Your task to perform on an android device: check battery use Image 0: 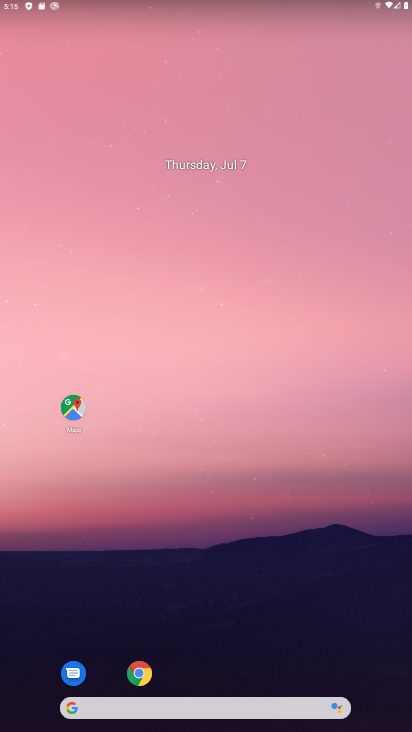
Step 0: click (345, 71)
Your task to perform on an android device: check battery use Image 1: 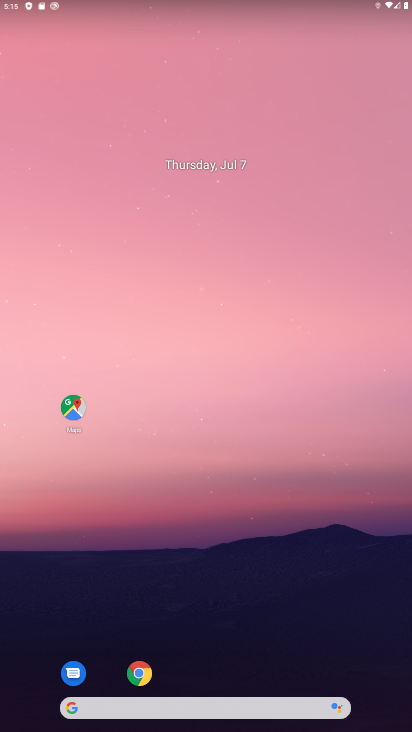
Step 1: press back button
Your task to perform on an android device: check battery use Image 2: 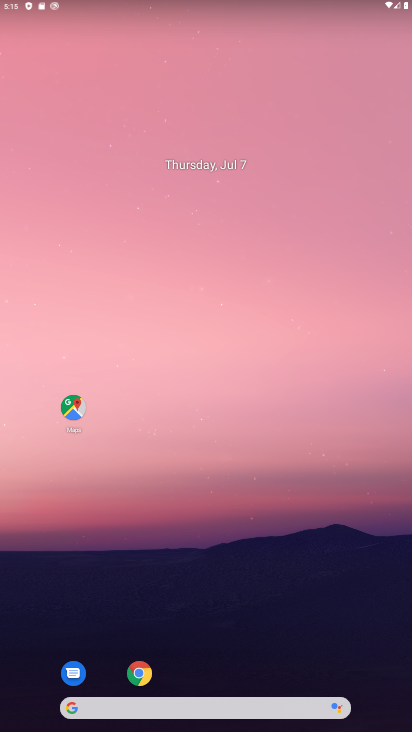
Step 2: press back button
Your task to perform on an android device: check battery use Image 3: 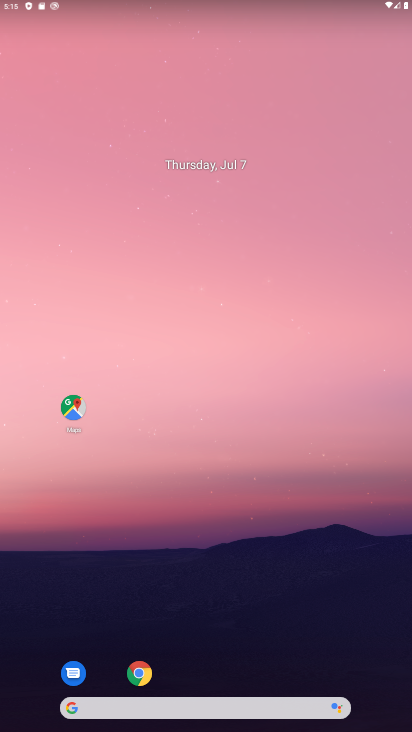
Step 3: click (233, 28)
Your task to perform on an android device: check battery use Image 4: 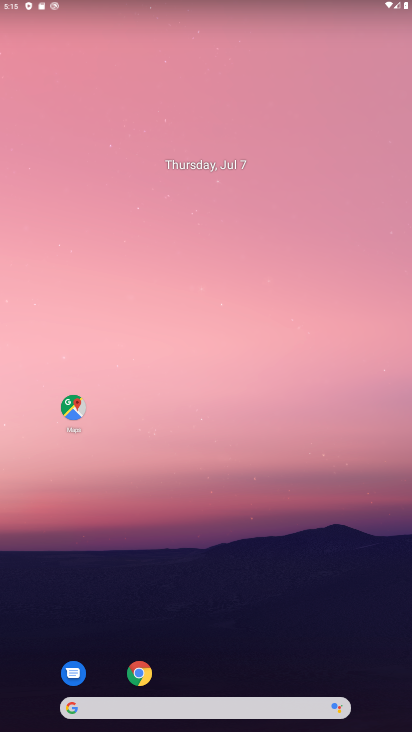
Step 4: drag from (207, 536) to (115, 132)
Your task to perform on an android device: check battery use Image 5: 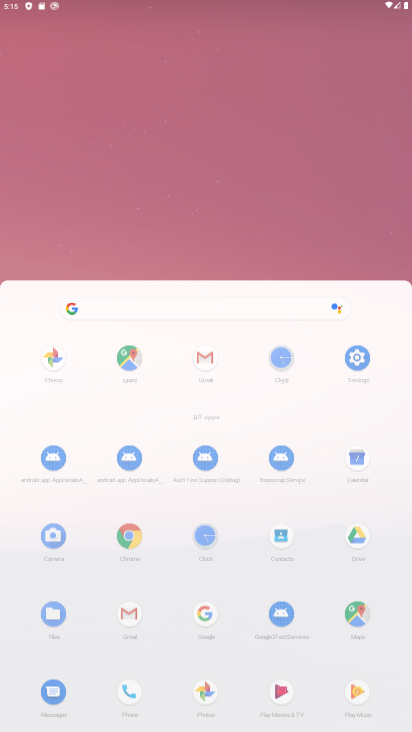
Step 5: drag from (196, 537) to (142, 117)
Your task to perform on an android device: check battery use Image 6: 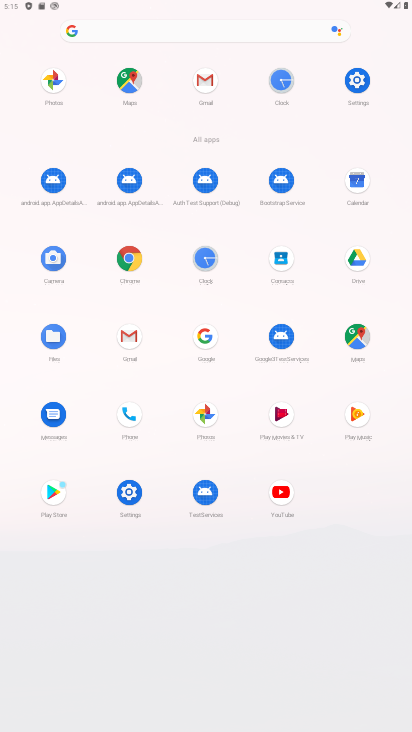
Step 6: click (137, 500)
Your task to perform on an android device: check battery use Image 7: 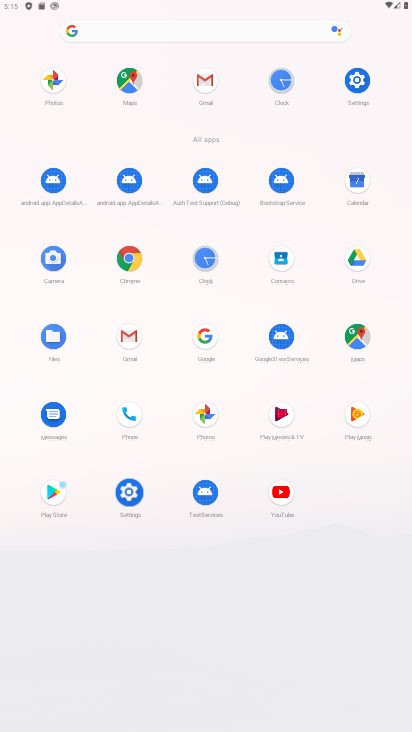
Step 7: click (134, 499)
Your task to perform on an android device: check battery use Image 8: 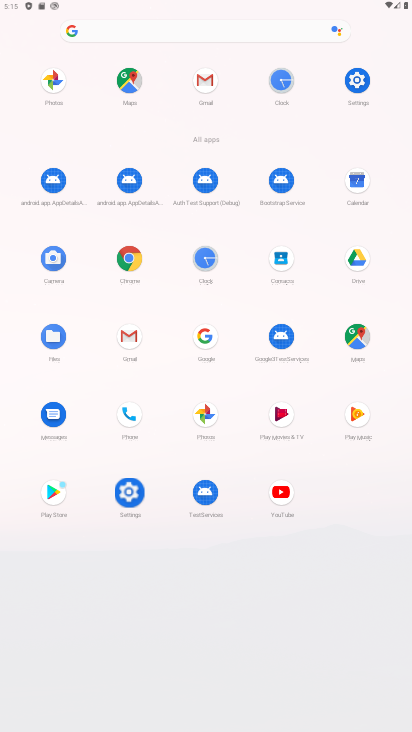
Step 8: click (134, 499)
Your task to perform on an android device: check battery use Image 9: 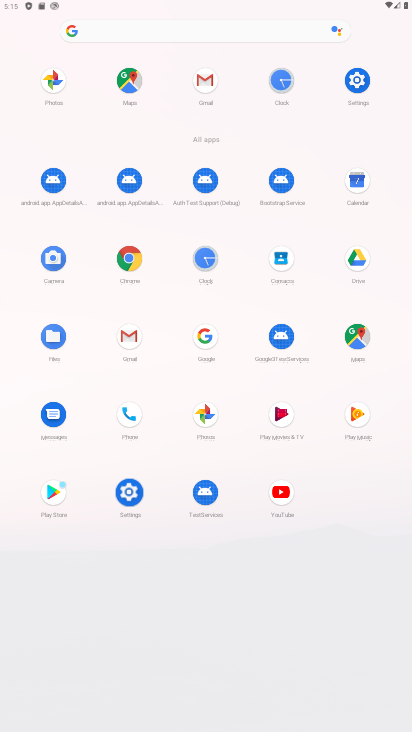
Step 9: click (134, 499)
Your task to perform on an android device: check battery use Image 10: 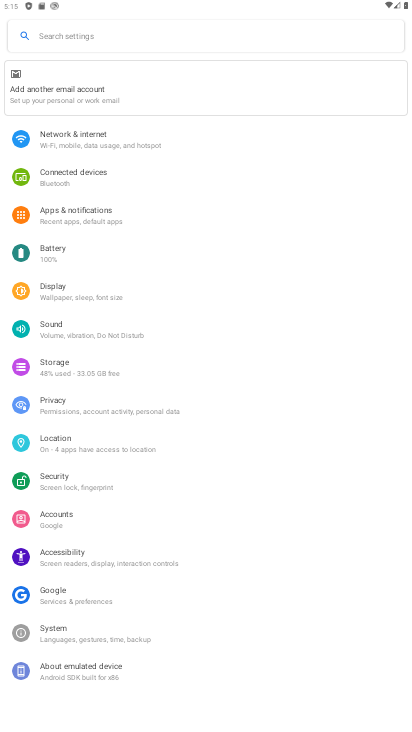
Step 10: click (49, 254)
Your task to perform on an android device: check battery use Image 11: 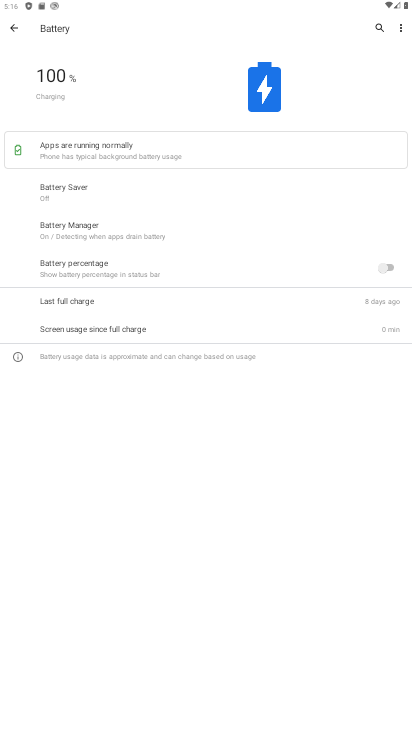
Step 11: task complete